Your task to perform on an android device: change alarm snooze length Image 0: 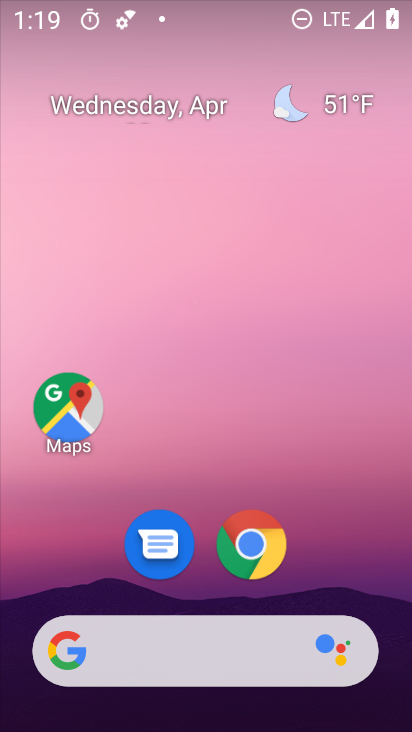
Step 0: drag from (333, 570) to (353, 162)
Your task to perform on an android device: change alarm snooze length Image 1: 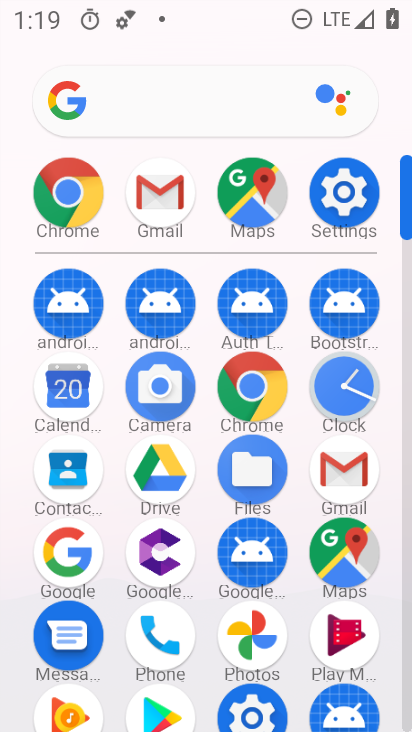
Step 1: click (346, 393)
Your task to perform on an android device: change alarm snooze length Image 2: 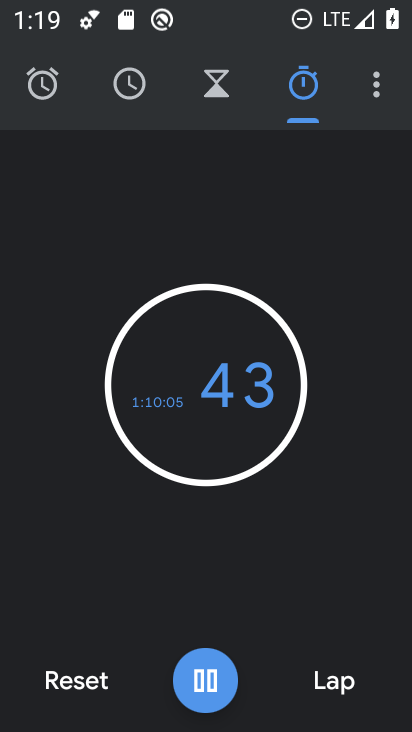
Step 2: click (382, 89)
Your task to perform on an android device: change alarm snooze length Image 3: 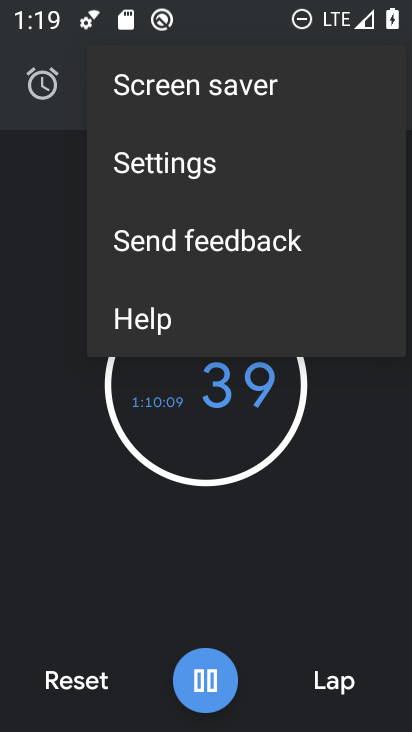
Step 3: click (213, 162)
Your task to perform on an android device: change alarm snooze length Image 4: 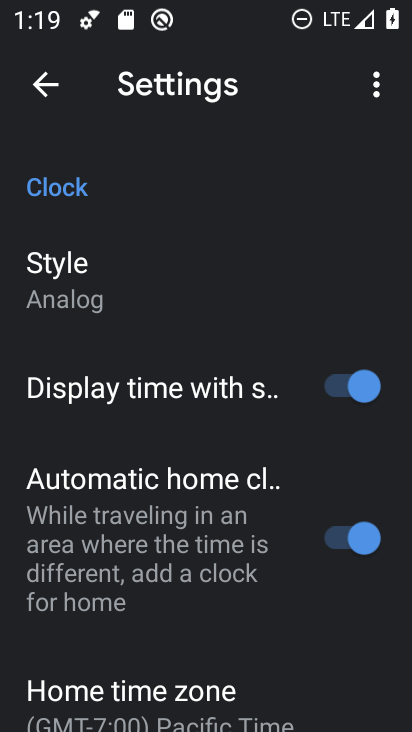
Step 4: drag from (306, 653) to (301, 477)
Your task to perform on an android device: change alarm snooze length Image 5: 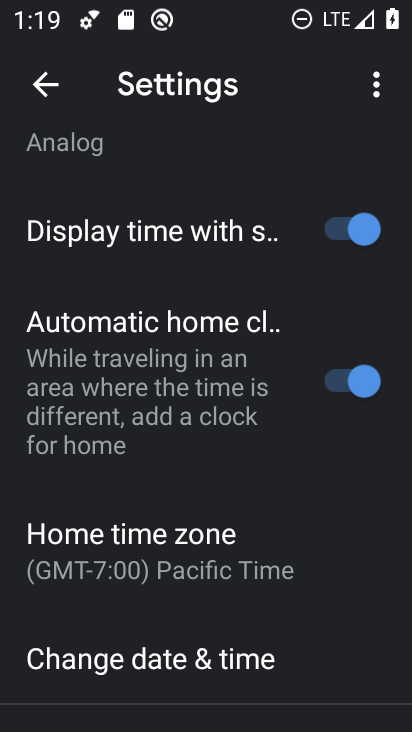
Step 5: drag from (322, 657) to (320, 482)
Your task to perform on an android device: change alarm snooze length Image 6: 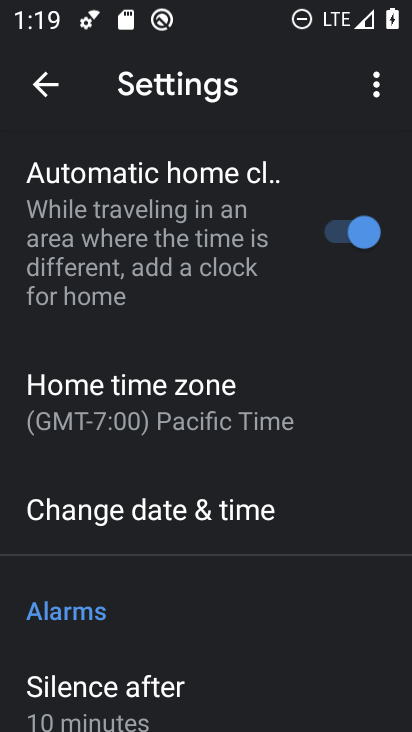
Step 6: drag from (341, 621) to (338, 485)
Your task to perform on an android device: change alarm snooze length Image 7: 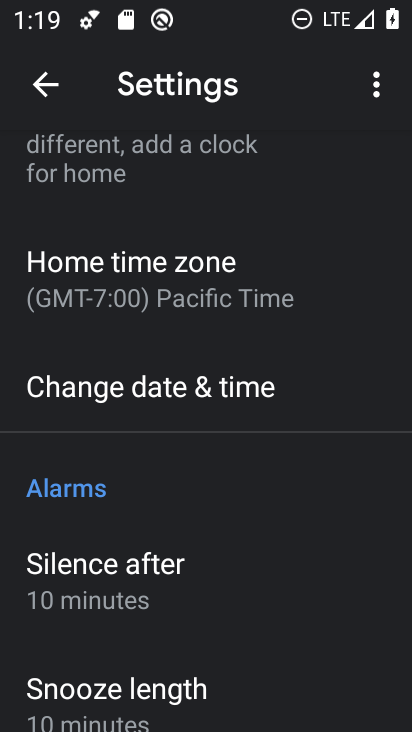
Step 7: drag from (339, 609) to (341, 456)
Your task to perform on an android device: change alarm snooze length Image 8: 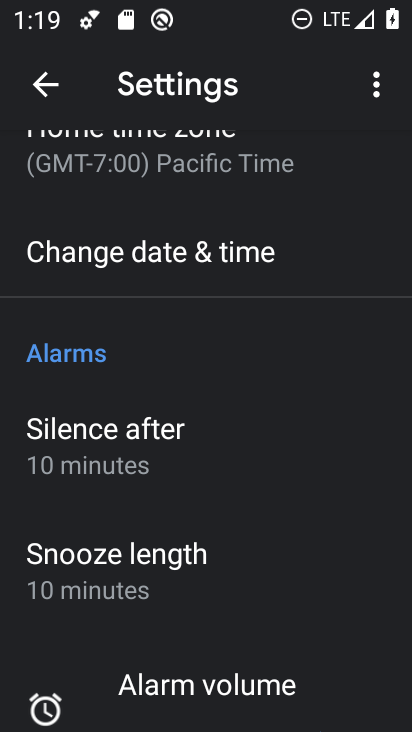
Step 8: drag from (330, 580) to (338, 448)
Your task to perform on an android device: change alarm snooze length Image 9: 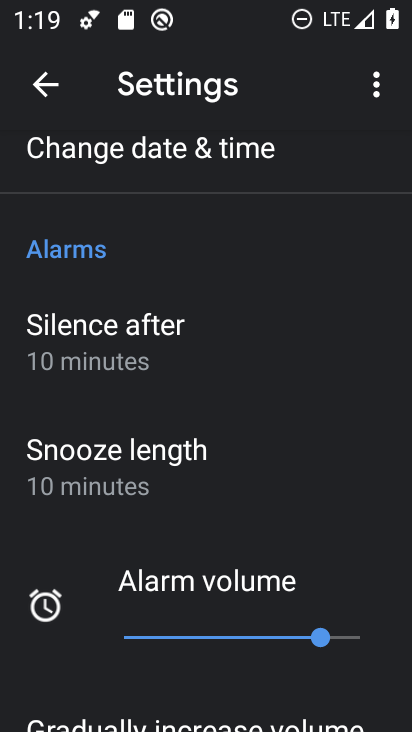
Step 9: drag from (336, 541) to (346, 449)
Your task to perform on an android device: change alarm snooze length Image 10: 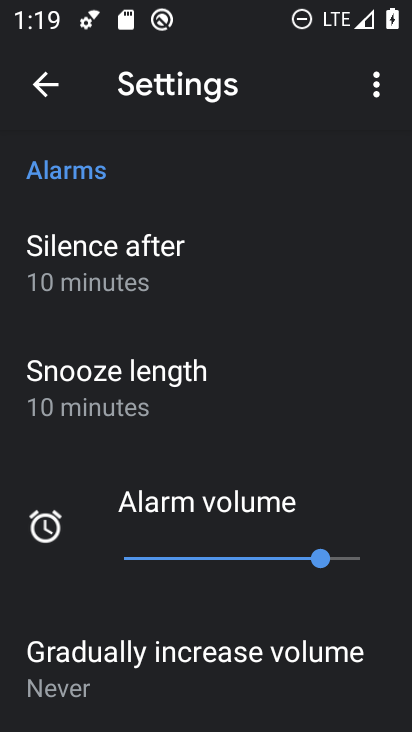
Step 10: click (149, 386)
Your task to perform on an android device: change alarm snooze length Image 11: 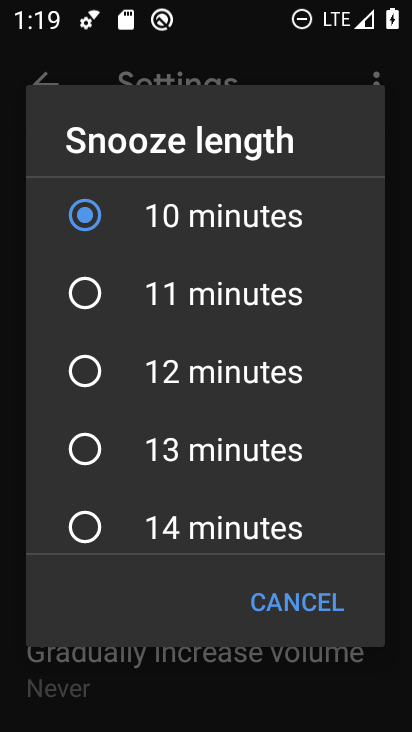
Step 11: click (214, 378)
Your task to perform on an android device: change alarm snooze length Image 12: 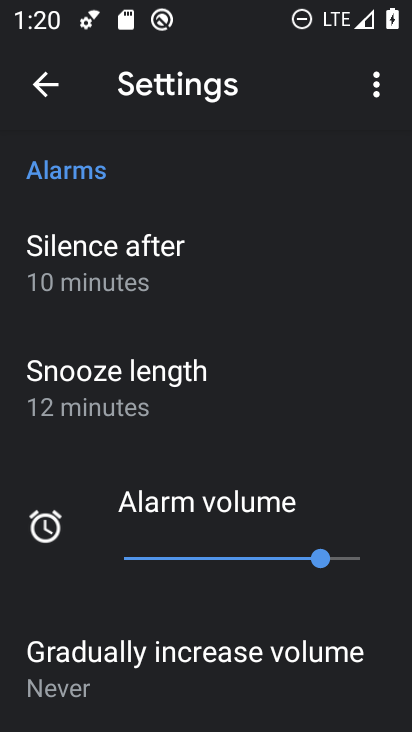
Step 12: task complete